Your task to perform on an android device: What's on my calendar tomorrow? Image 0: 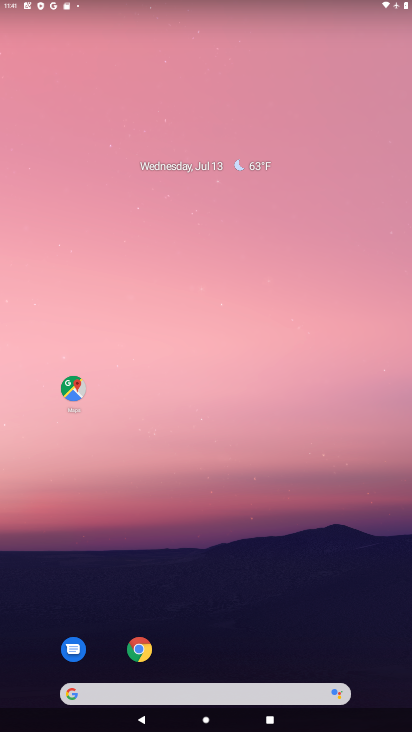
Step 0: drag from (208, 615) to (204, 262)
Your task to perform on an android device: What's on my calendar tomorrow? Image 1: 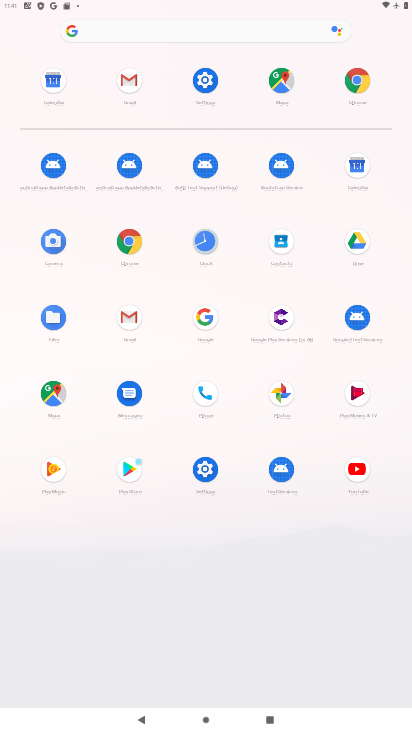
Step 1: click (246, 243)
Your task to perform on an android device: What's on my calendar tomorrow? Image 2: 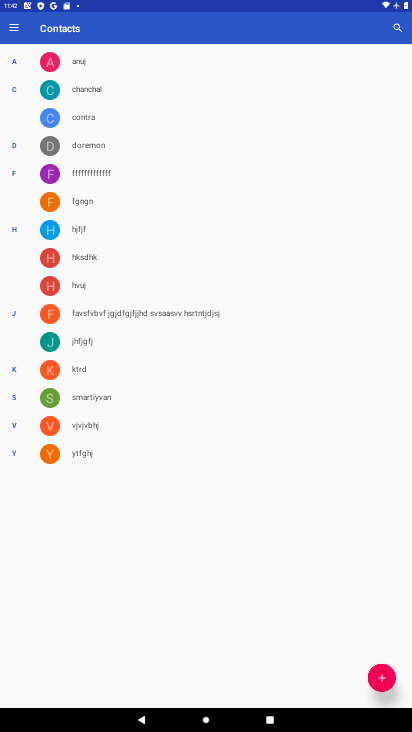
Step 2: press home button
Your task to perform on an android device: What's on my calendar tomorrow? Image 3: 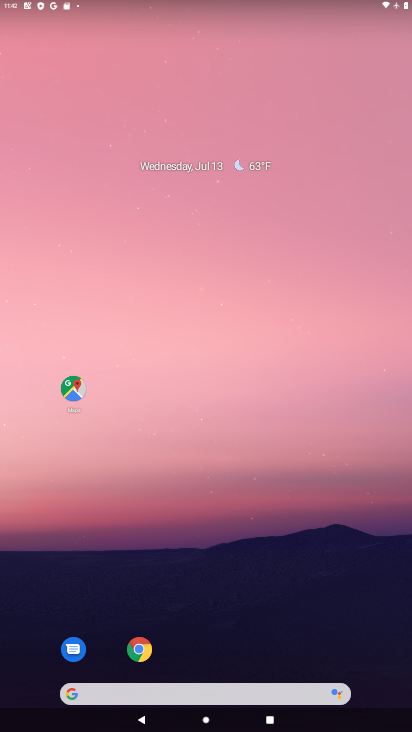
Step 3: drag from (196, 640) to (266, 232)
Your task to perform on an android device: What's on my calendar tomorrow? Image 4: 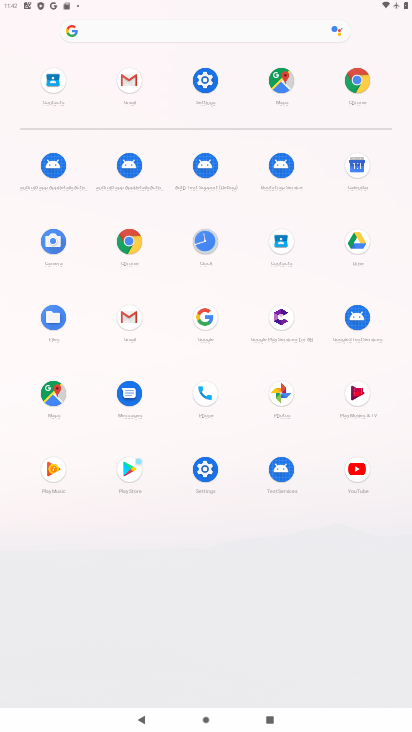
Step 4: click (354, 151)
Your task to perform on an android device: What's on my calendar tomorrow? Image 5: 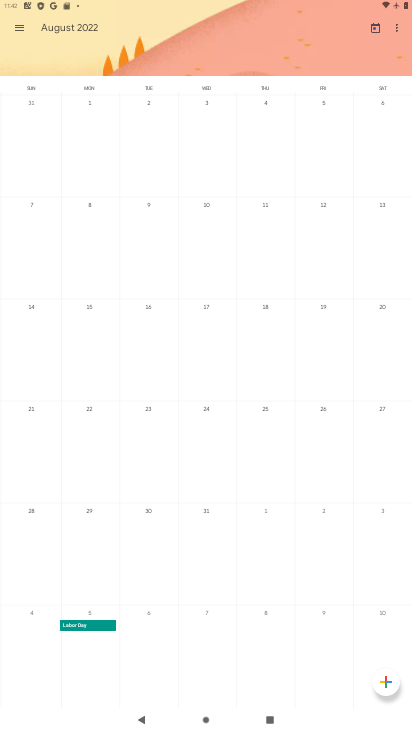
Step 5: click (20, 27)
Your task to perform on an android device: What's on my calendar tomorrow? Image 6: 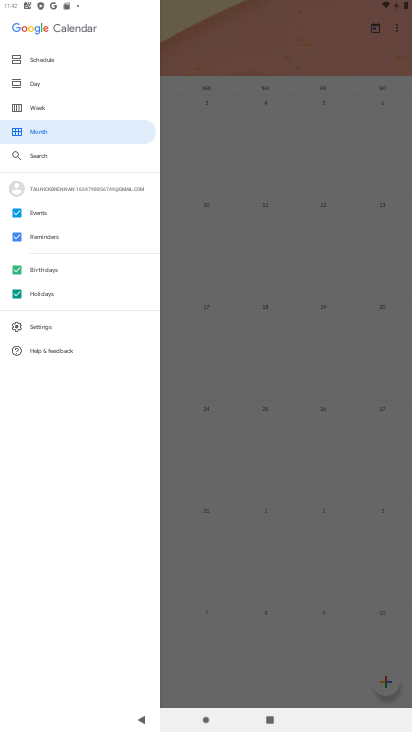
Step 6: click (64, 127)
Your task to perform on an android device: What's on my calendar tomorrow? Image 7: 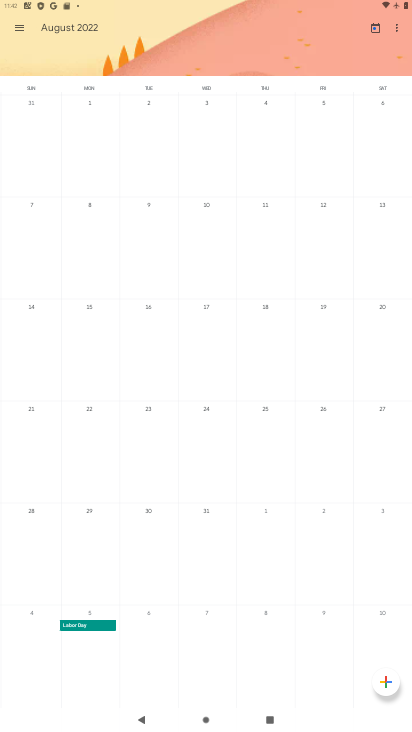
Step 7: drag from (28, 195) to (388, 259)
Your task to perform on an android device: What's on my calendar tomorrow? Image 8: 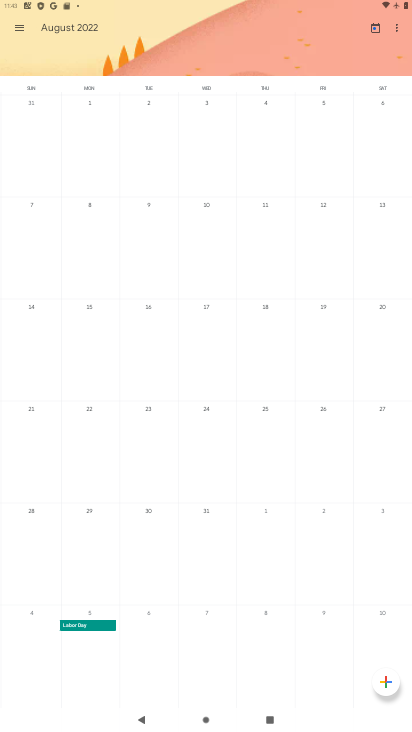
Step 8: drag from (53, 169) to (379, 314)
Your task to perform on an android device: What's on my calendar tomorrow? Image 9: 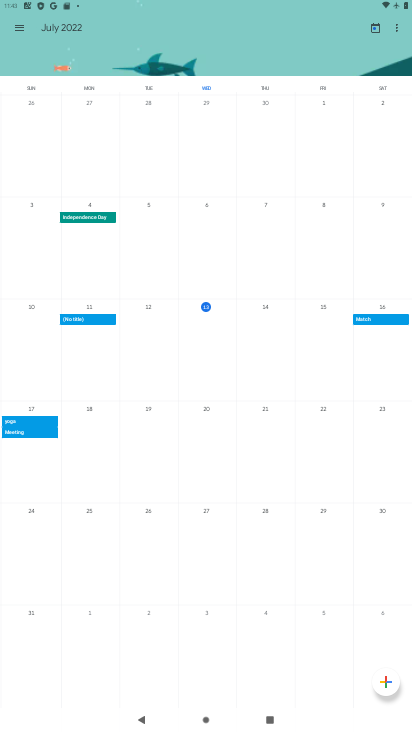
Step 9: click (318, 318)
Your task to perform on an android device: What's on my calendar tomorrow? Image 10: 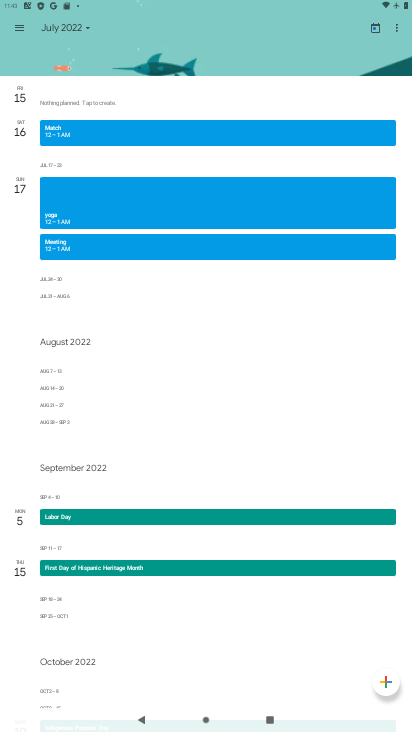
Step 10: task complete